Your task to perform on an android device: check android version Image 0: 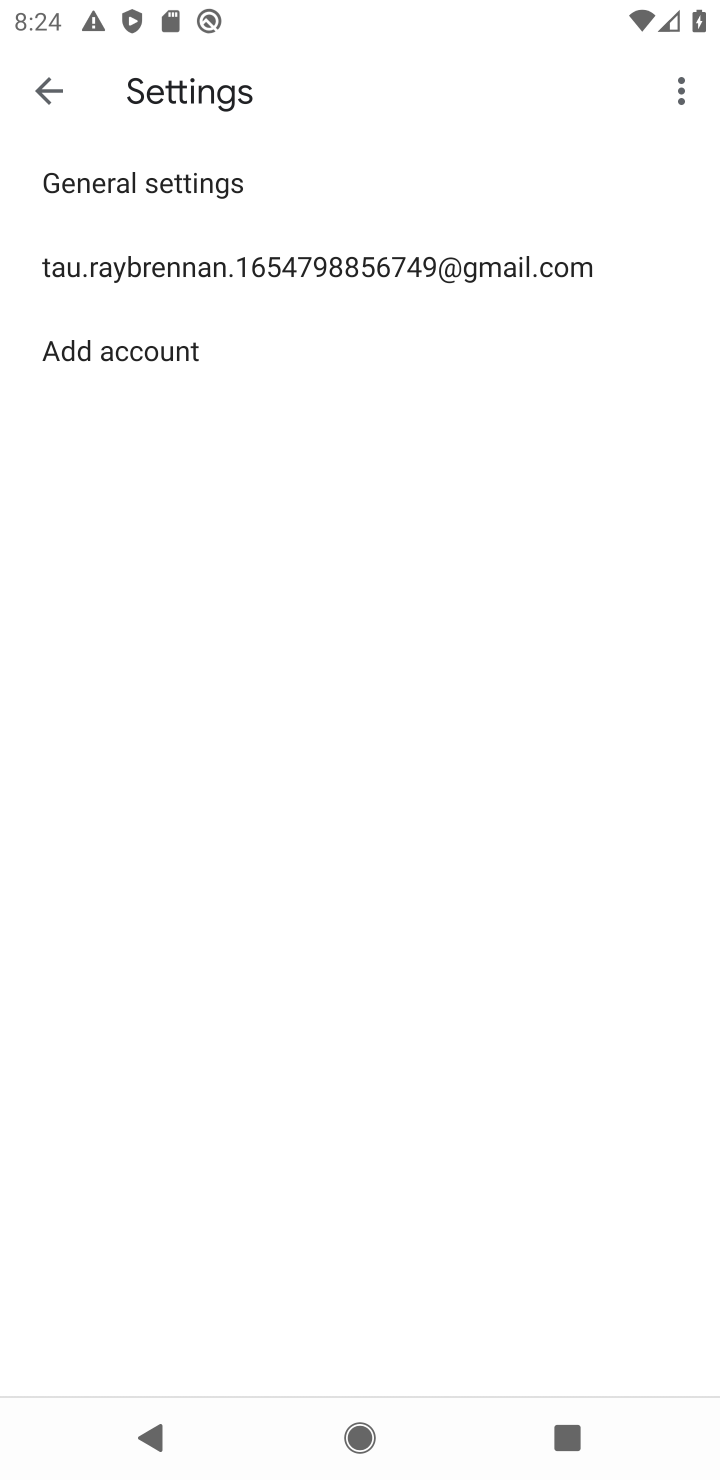
Step 0: press back button
Your task to perform on an android device: check android version Image 1: 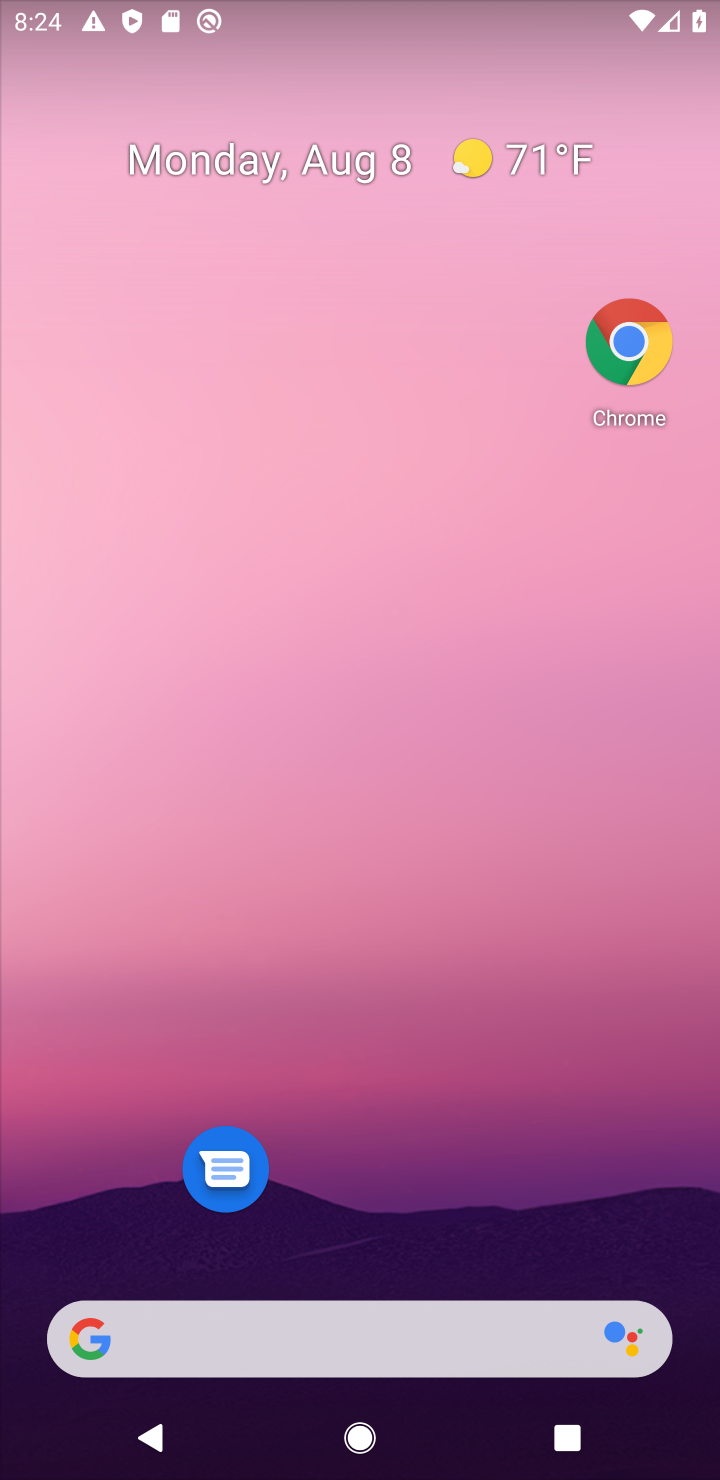
Step 1: drag from (380, 1166) to (532, 7)
Your task to perform on an android device: check android version Image 2: 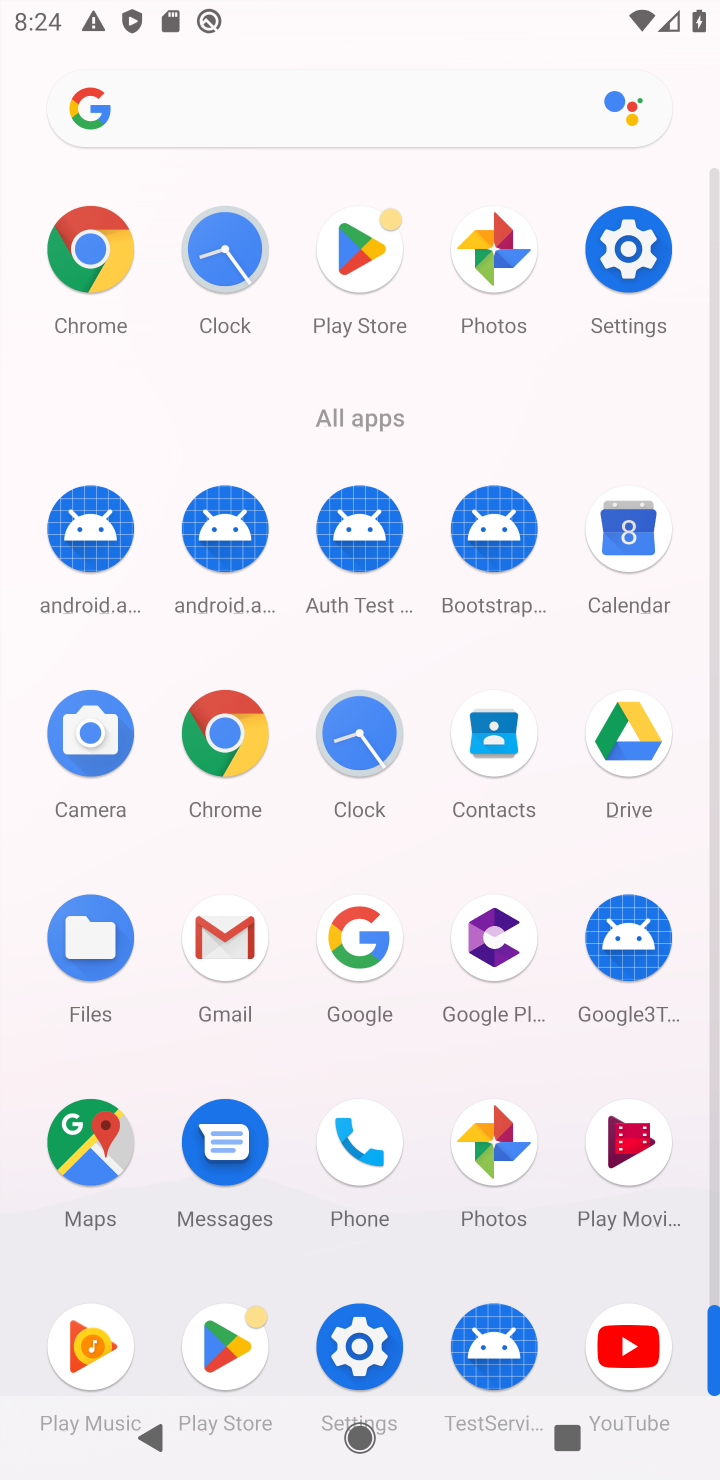
Step 2: click (663, 228)
Your task to perform on an android device: check android version Image 3: 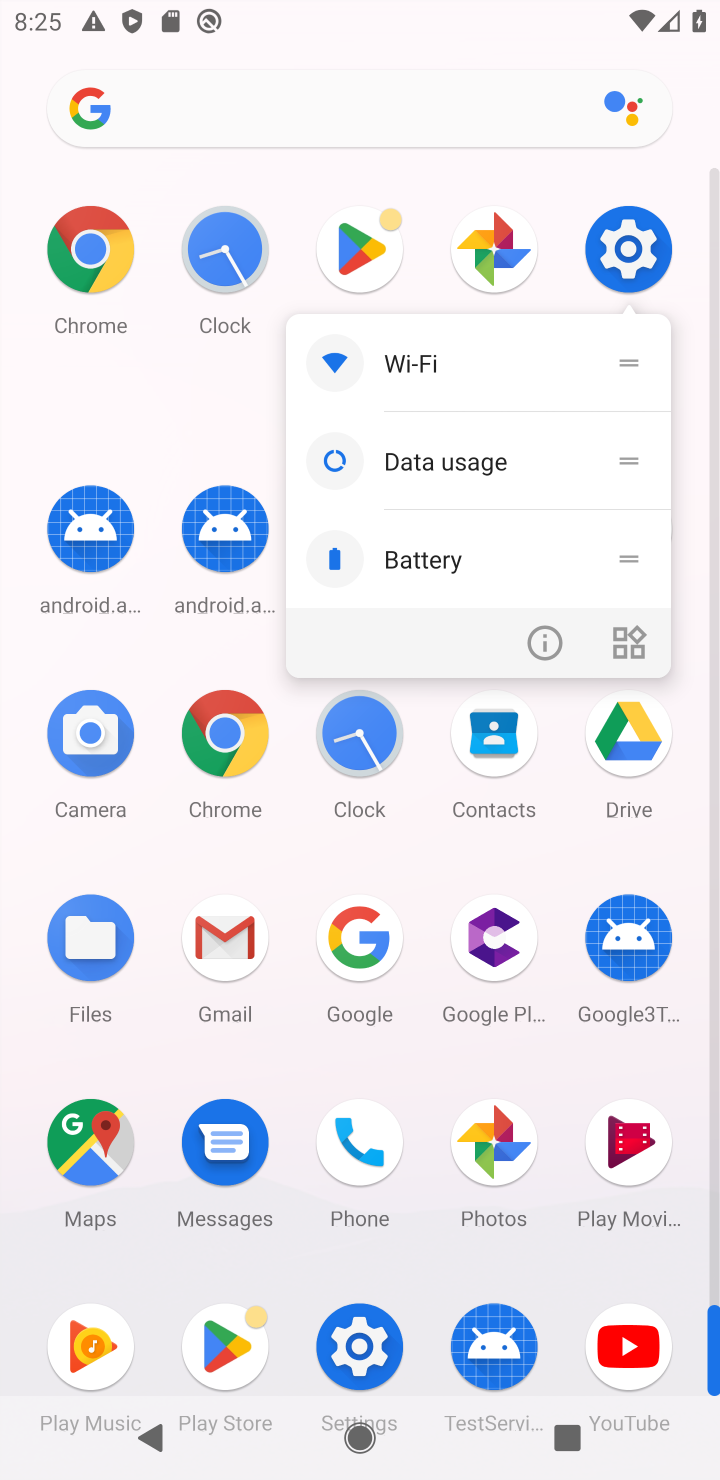
Step 3: click (629, 220)
Your task to perform on an android device: check android version Image 4: 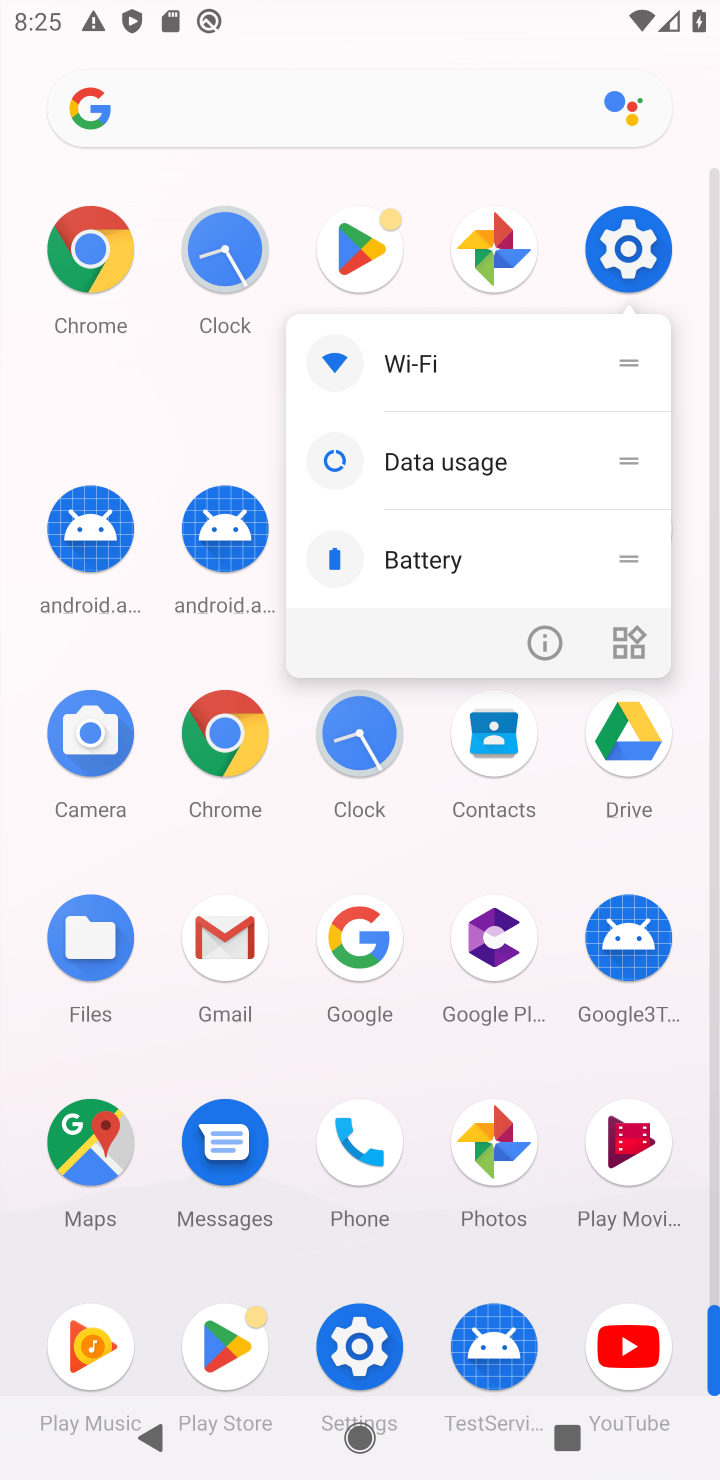
Step 4: click (649, 260)
Your task to perform on an android device: check android version Image 5: 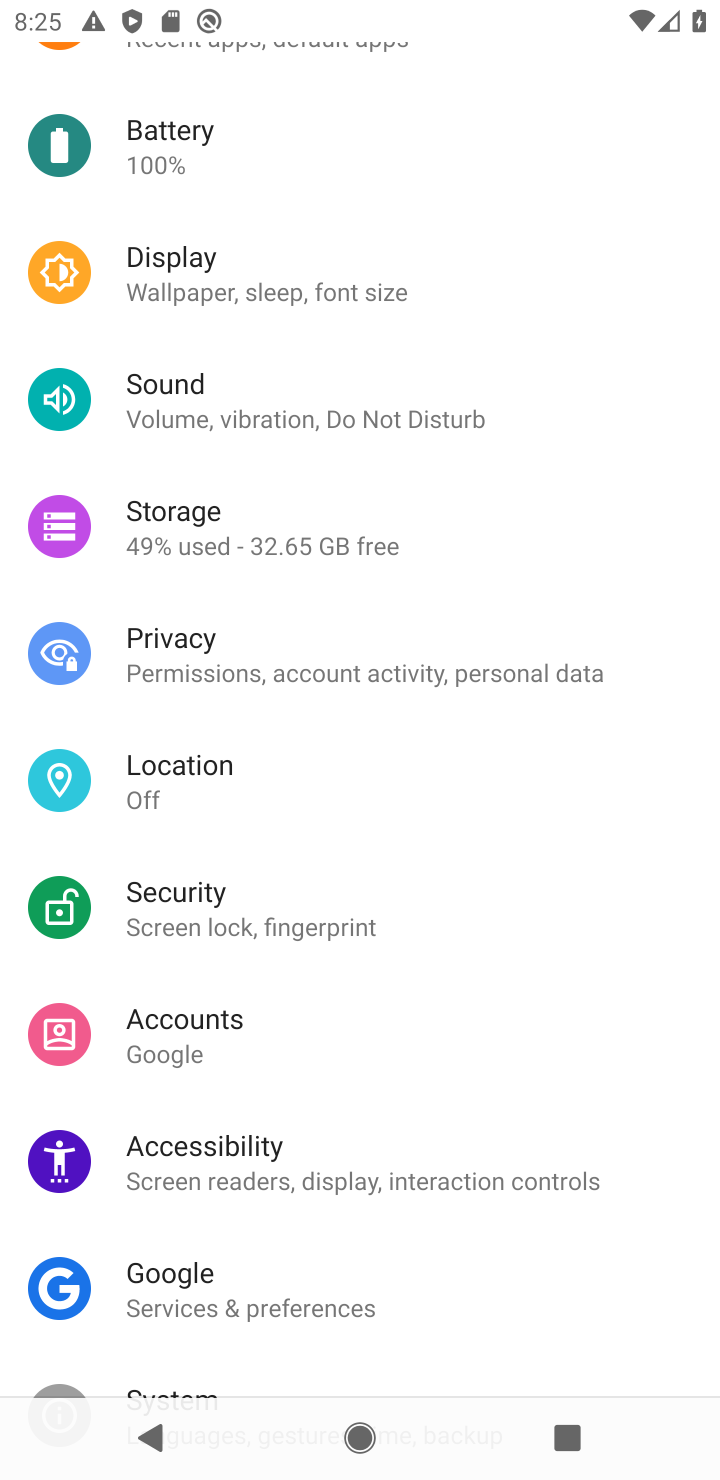
Step 5: drag from (249, 1235) to (587, 13)
Your task to perform on an android device: check android version Image 6: 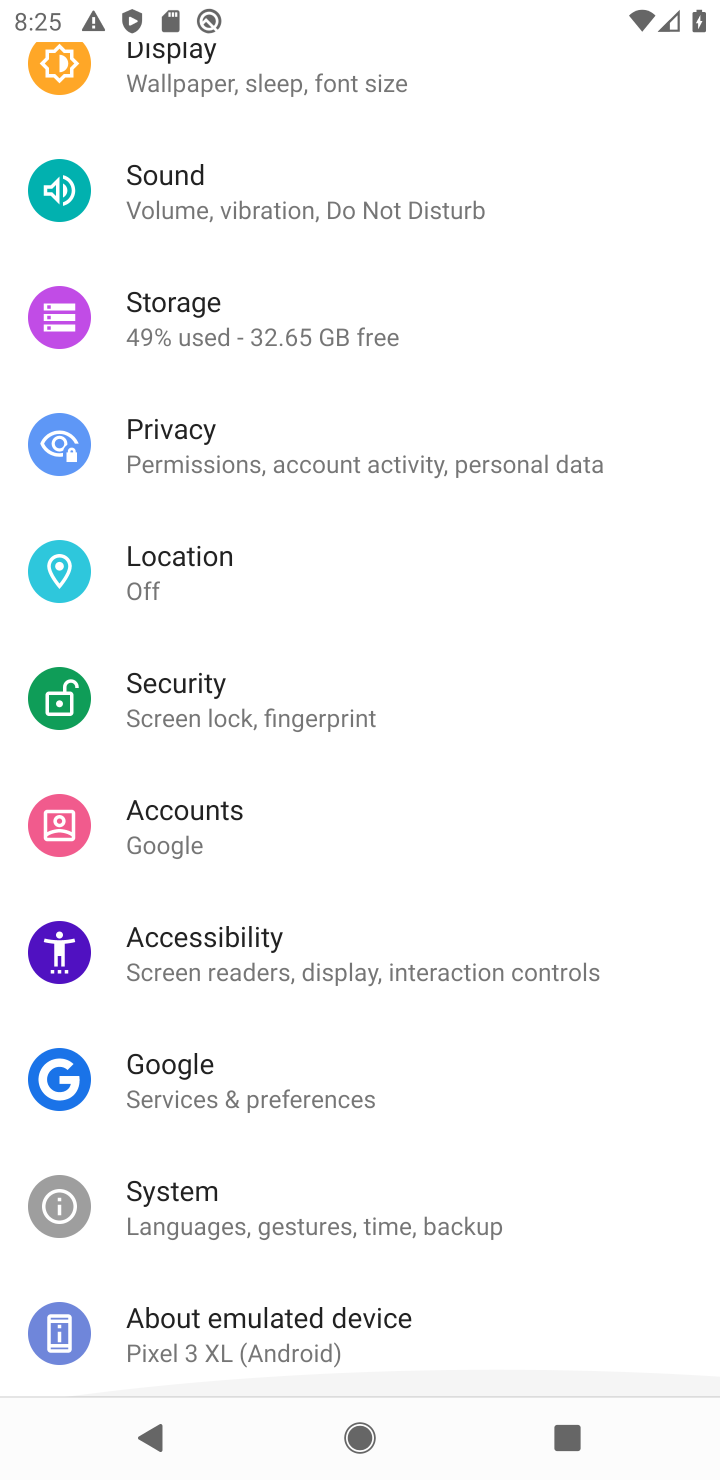
Step 6: drag from (264, 1272) to (549, 18)
Your task to perform on an android device: check android version Image 7: 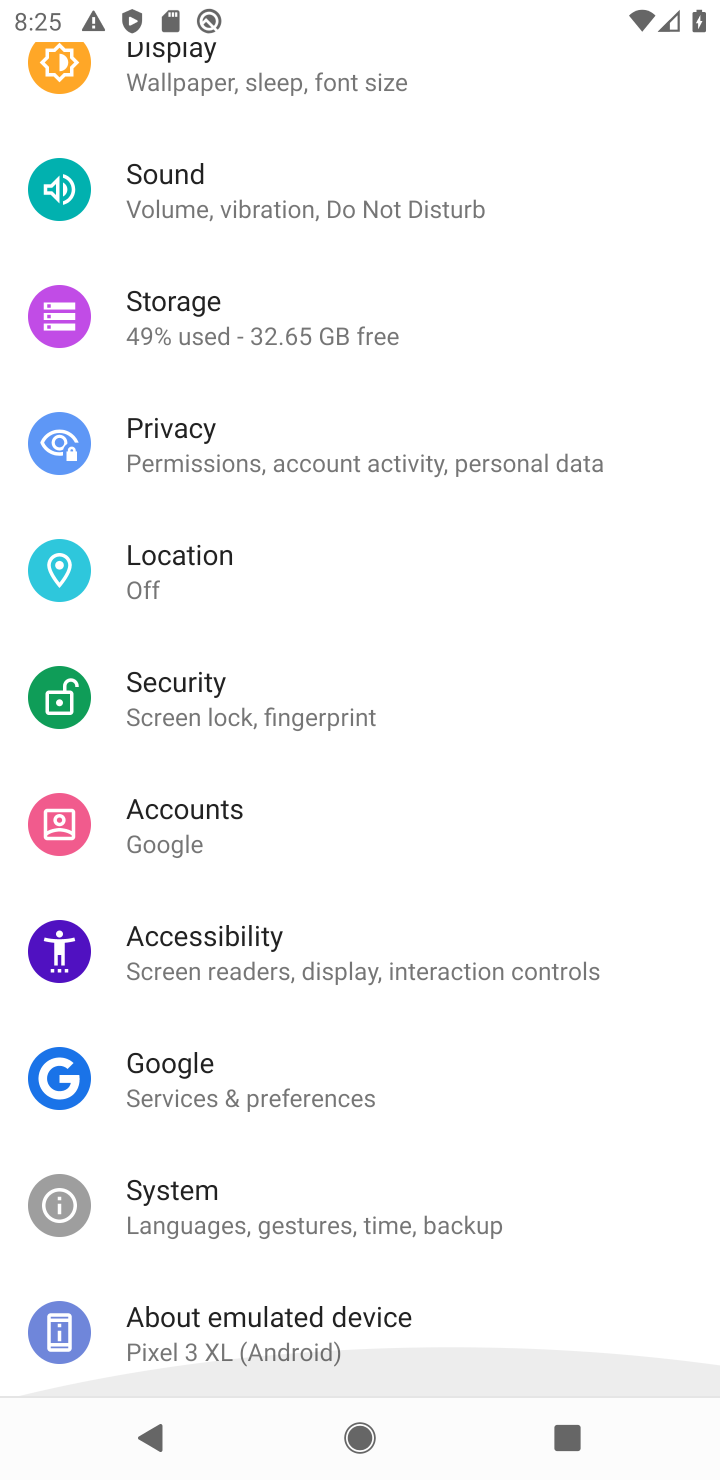
Step 7: click (237, 1313)
Your task to perform on an android device: check android version Image 8: 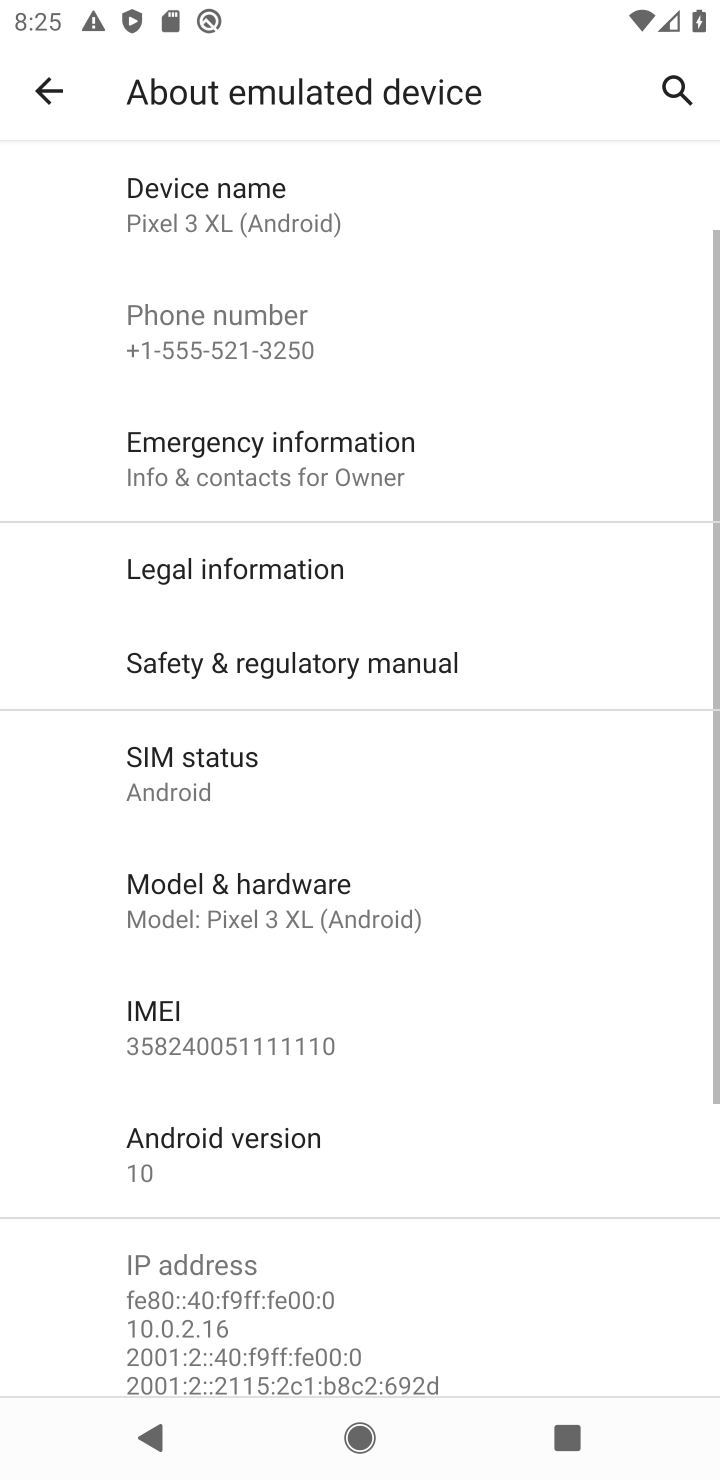
Step 8: click (215, 1177)
Your task to perform on an android device: check android version Image 9: 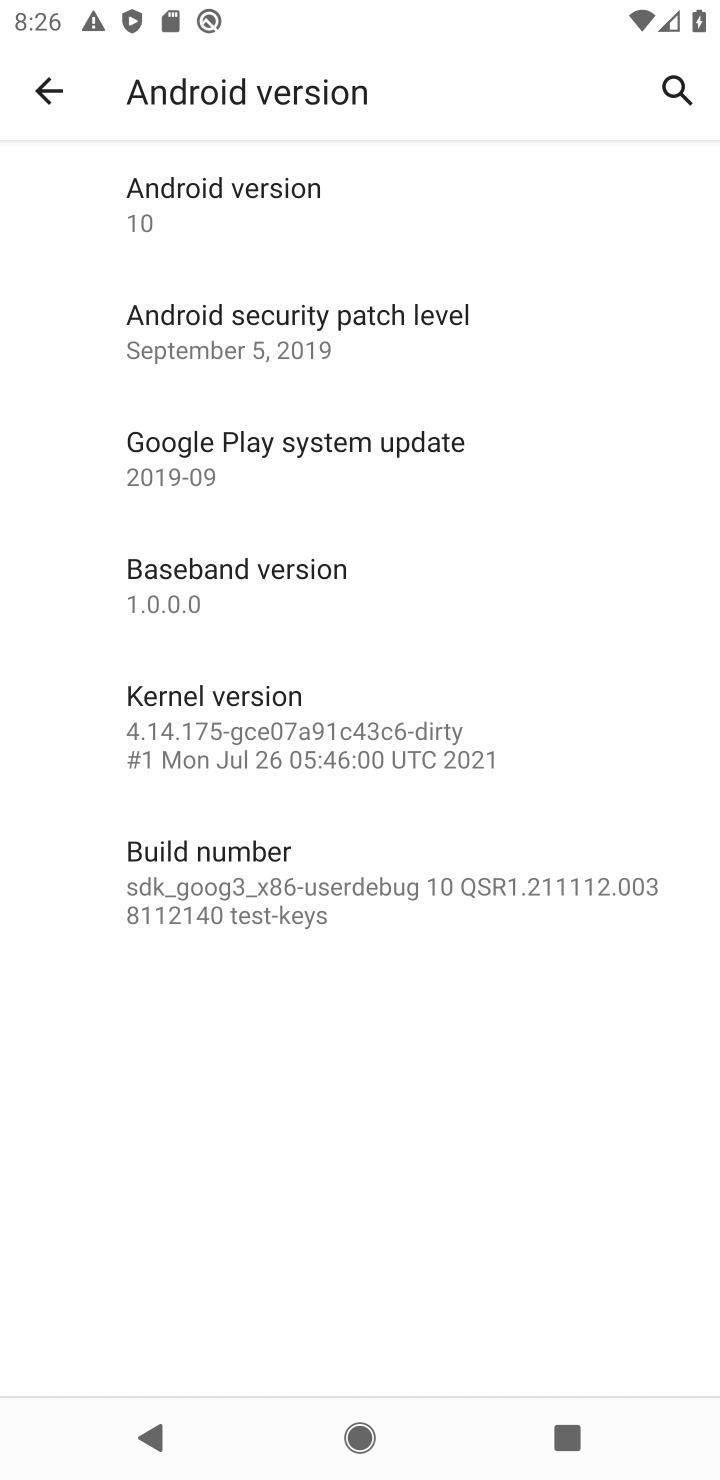
Step 9: click (189, 197)
Your task to perform on an android device: check android version Image 10: 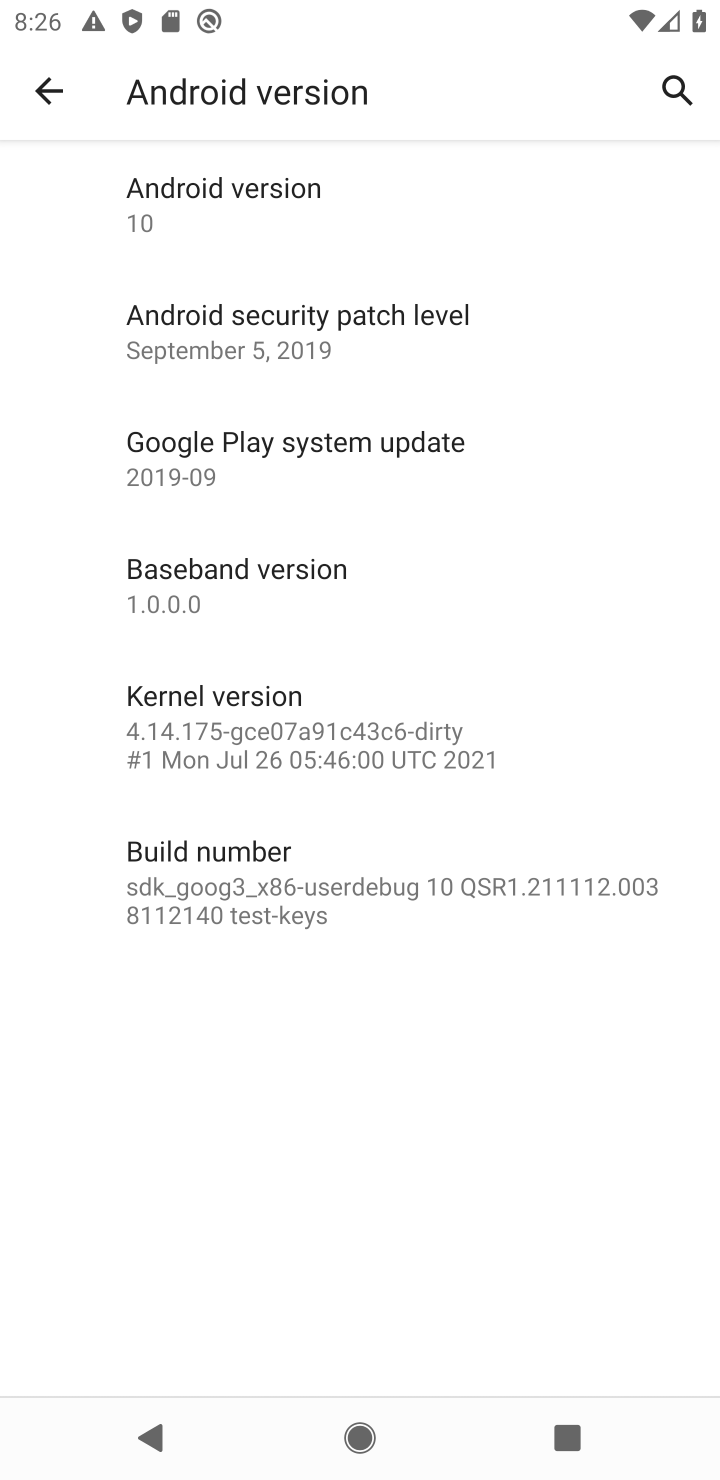
Step 10: task complete